Your task to perform on an android device: change keyboard looks Image 0: 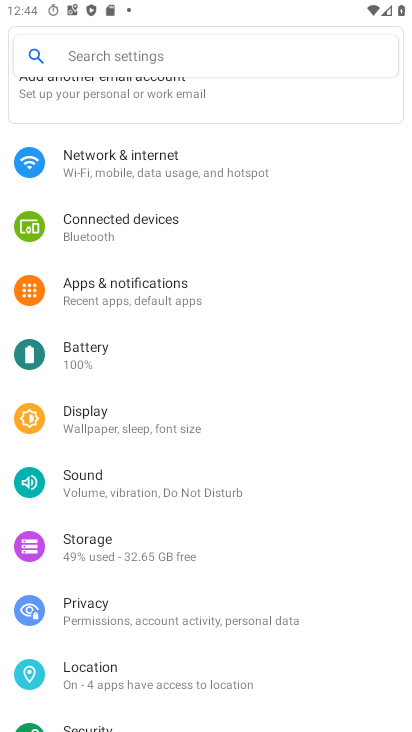
Step 0: drag from (236, 636) to (214, 209)
Your task to perform on an android device: change keyboard looks Image 1: 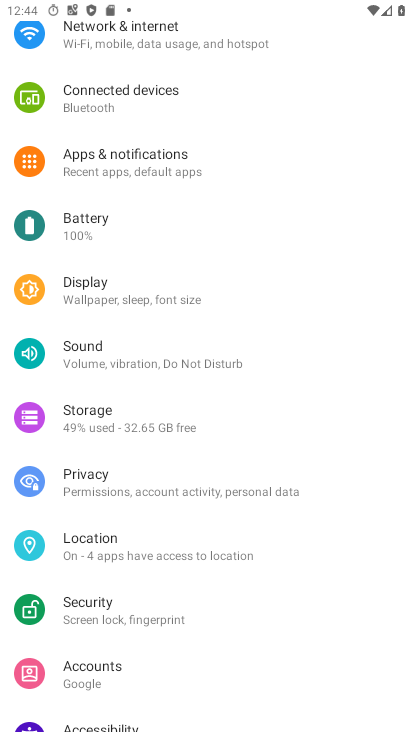
Step 1: drag from (113, 572) to (85, 63)
Your task to perform on an android device: change keyboard looks Image 2: 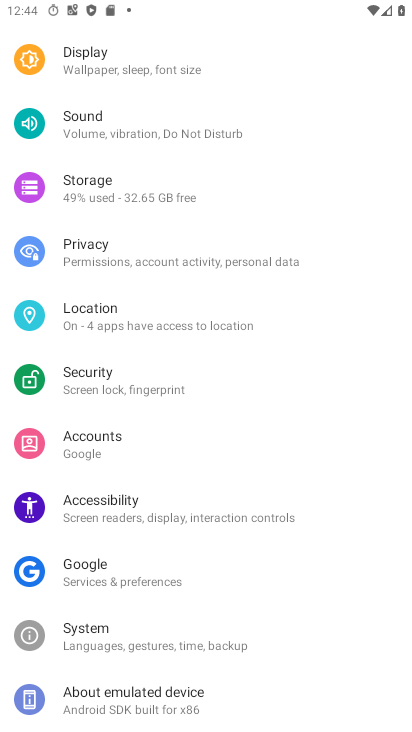
Step 2: click (165, 623)
Your task to perform on an android device: change keyboard looks Image 3: 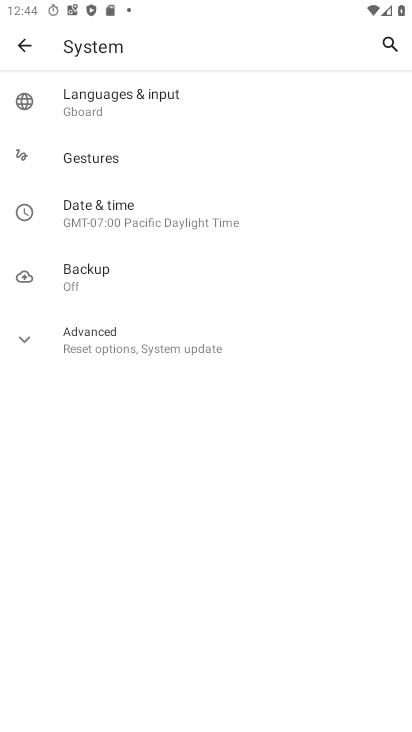
Step 3: click (177, 102)
Your task to perform on an android device: change keyboard looks Image 4: 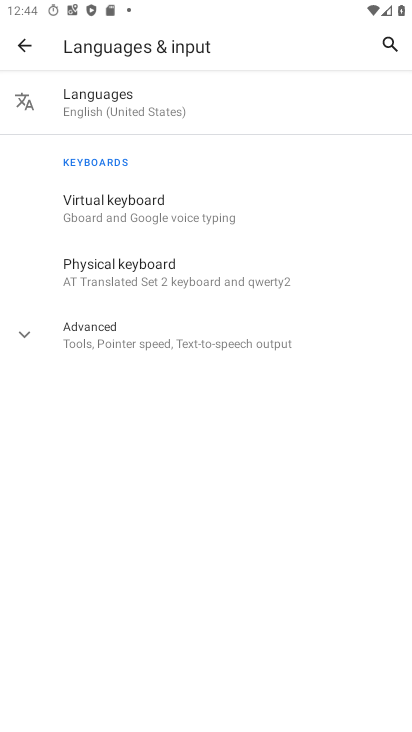
Step 4: click (71, 219)
Your task to perform on an android device: change keyboard looks Image 5: 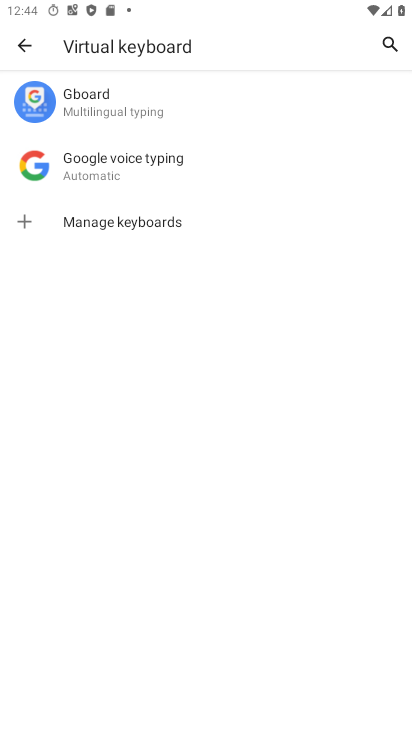
Step 5: click (159, 121)
Your task to perform on an android device: change keyboard looks Image 6: 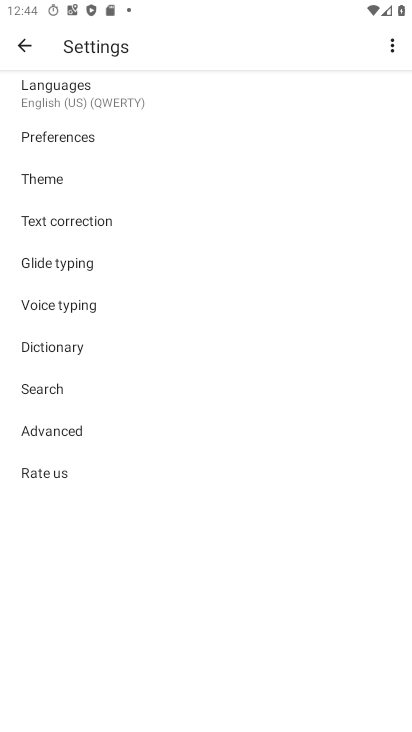
Step 6: click (121, 186)
Your task to perform on an android device: change keyboard looks Image 7: 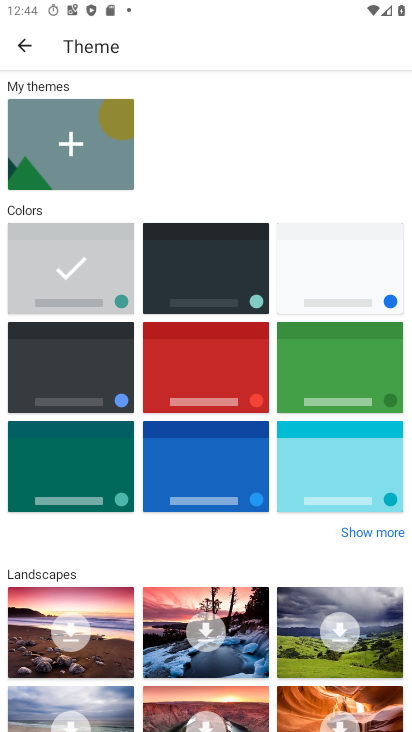
Step 7: click (195, 288)
Your task to perform on an android device: change keyboard looks Image 8: 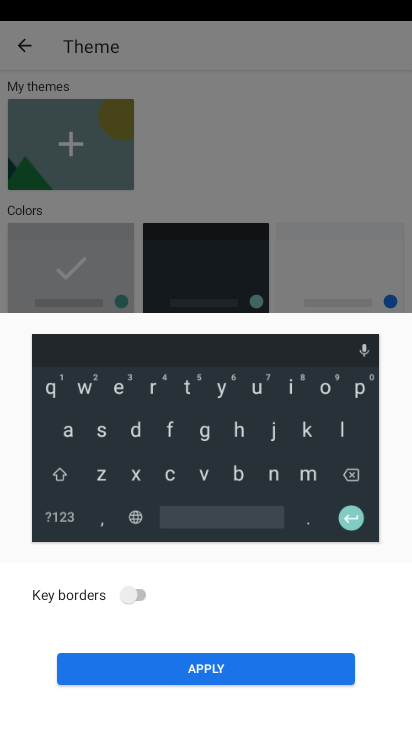
Step 8: click (227, 665)
Your task to perform on an android device: change keyboard looks Image 9: 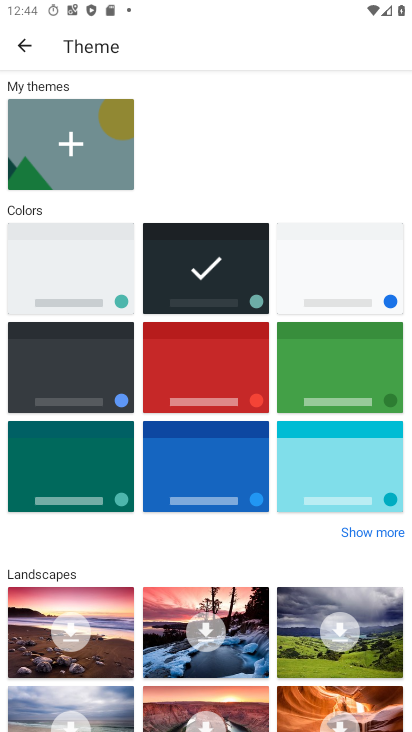
Step 9: task complete